Your task to perform on an android device: move an email to a new category in the gmail app Image 0: 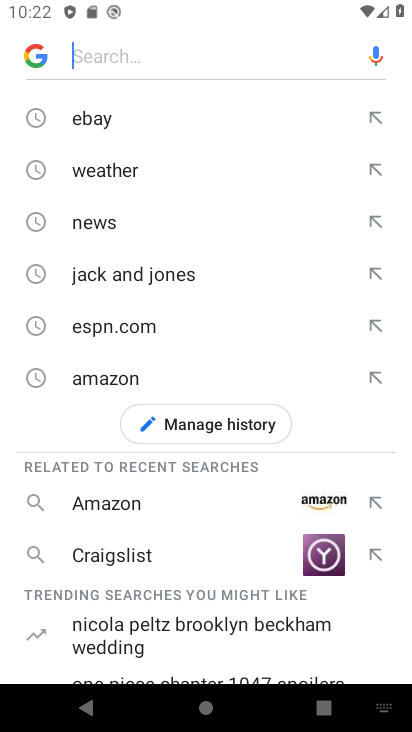
Step 0: press home button
Your task to perform on an android device: move an email to a new category in the gmail app Image 1: 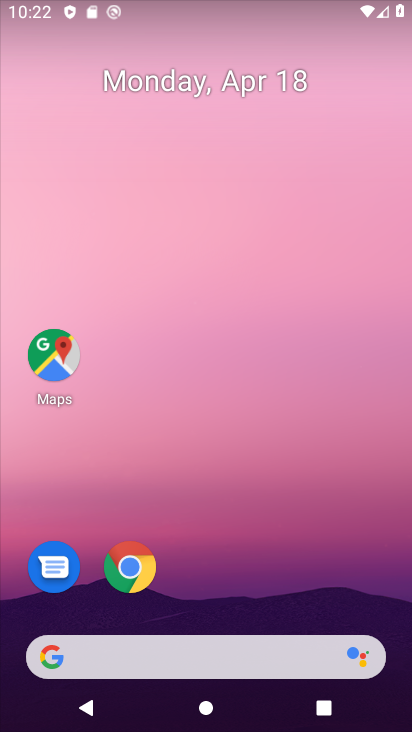
Step 1: drag from (181, 609) to (205, 59)
Your task to perform on an android device: move an email to a new category in the gmail app Image 2: 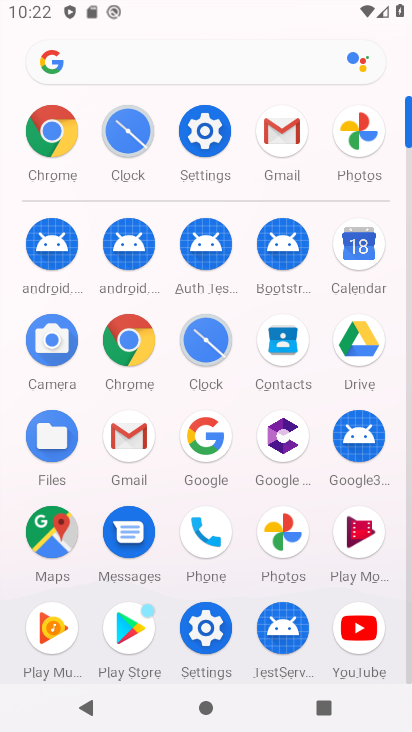
Step 2: click (287, 135)
Your task to perform on an android device: move an email to a new category in the gmail app Image 3: 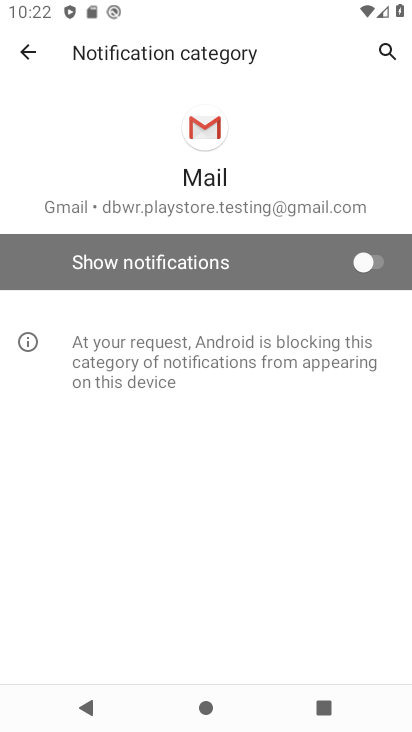
Step 3: click (27, 49)
Your task to perform on an android device: move an email to a new category in the gmail app Image 4: 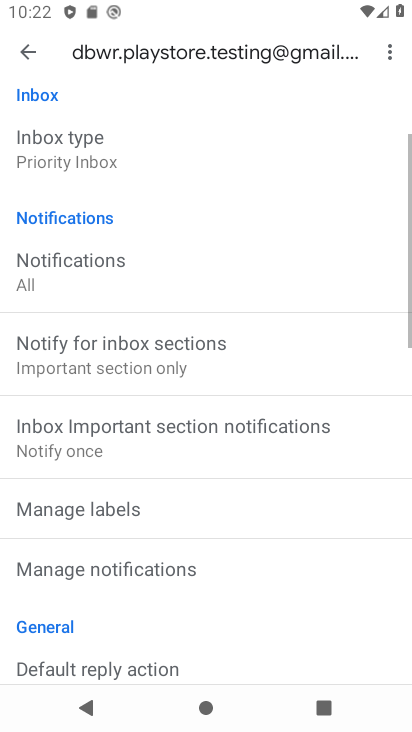
Step 4: click (27, 49)
Your task to perform on an android device: move an email to a new category in the gmail app Image 5: 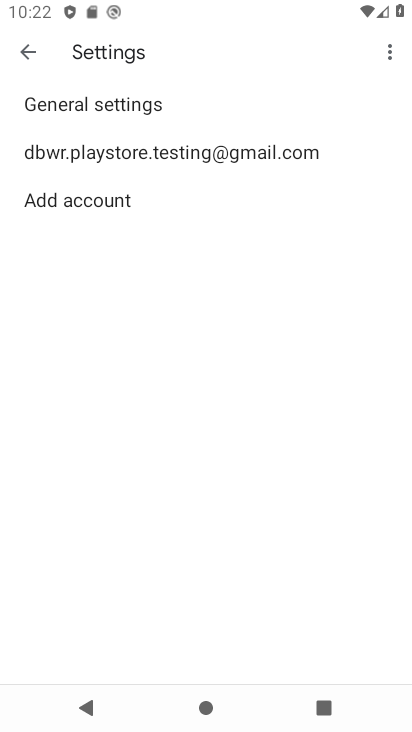
Step 5: click (27, 49)
Your task to perform on an android device: move an email to a new category in the gmail app Image 6: 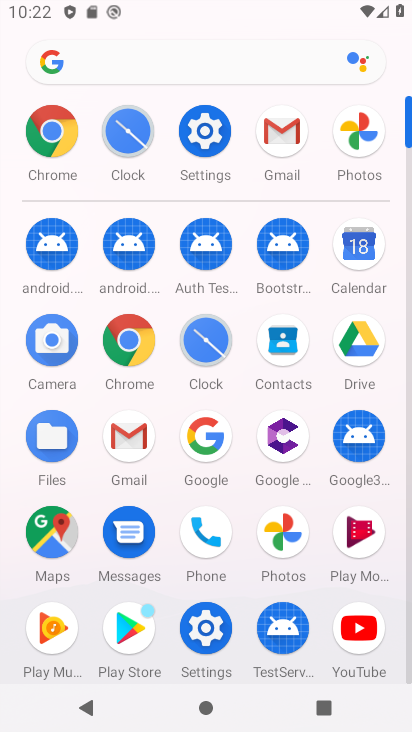
Step 6: click (274, 150)
Your task to perform on an android device: move an email to a new category in the gmail app Image 7: 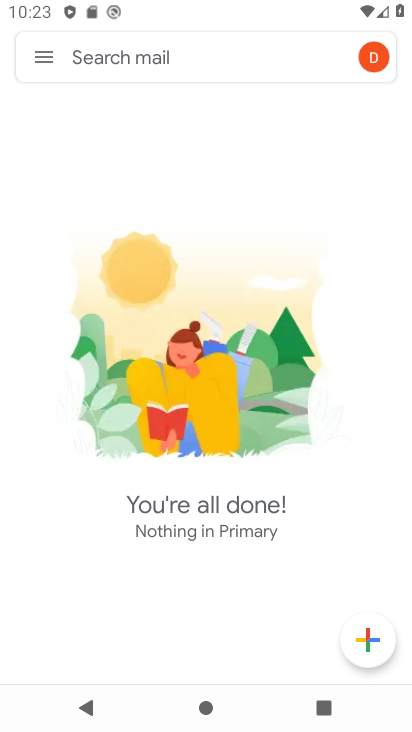
Step 7: click (47, 60)
Your task to perform on an android device: move an email to a new category in the gmail app Image 8: 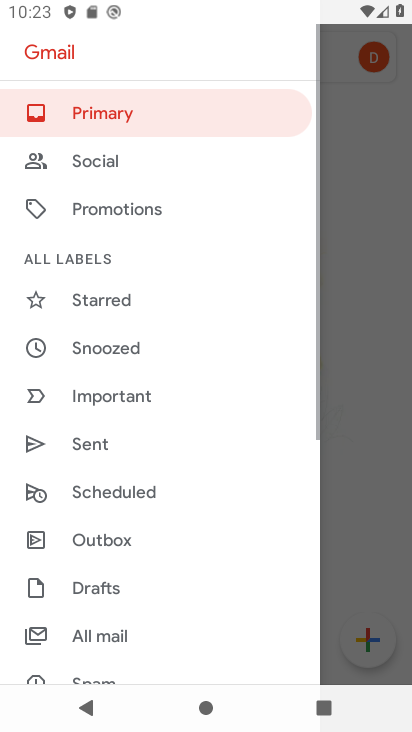
Step 8: drag from (93, 98) to (58, 384)
Your task to perform on an android device: move an email to a new category in the gmail app Image 9: 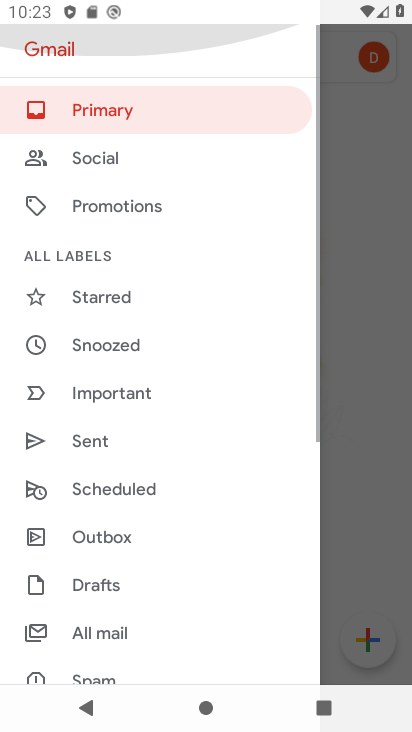
Step 9: click (111, 123)
Your task to perform on an android device: move an email to a new category in the gmail app Image 10: 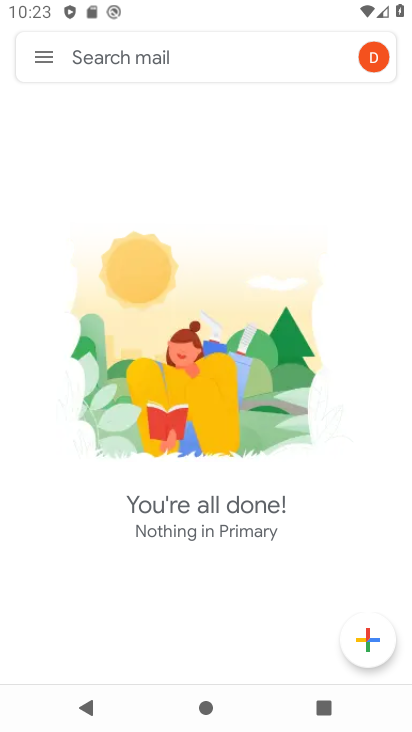
Step 10: task complete